Your task to perform on an android device: allow notifications from all sites in the chrome app Image 0: 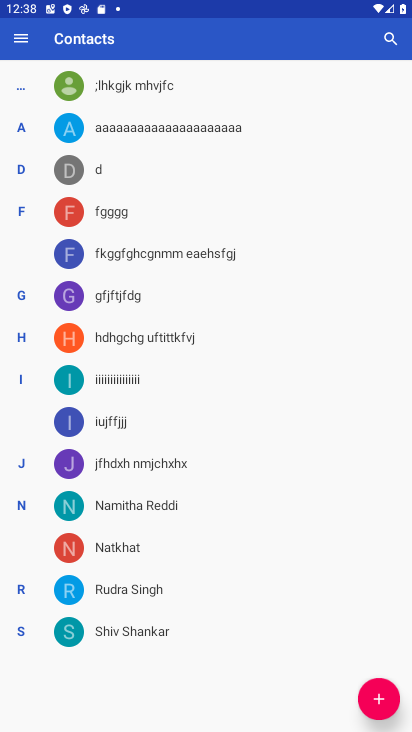
Step 0: press home button
Your task to perform on an android device: allow notifications from all sites in the chrome app Image 1: 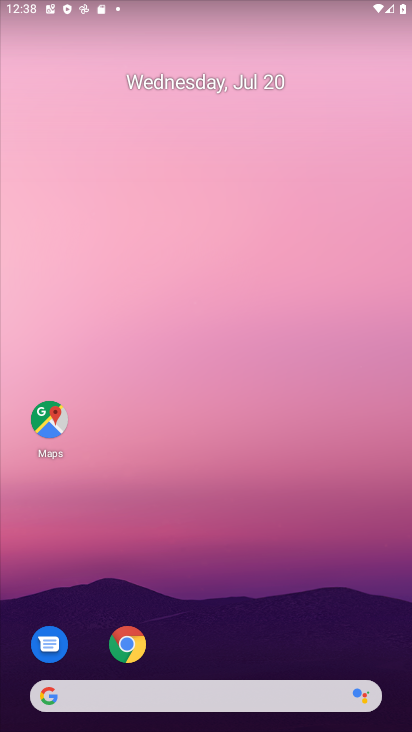
Step 1: drag from (336, 606) to (334, 138)
Your task to perform on an android device: allow notifications from all sites in the chrome app Image 2: 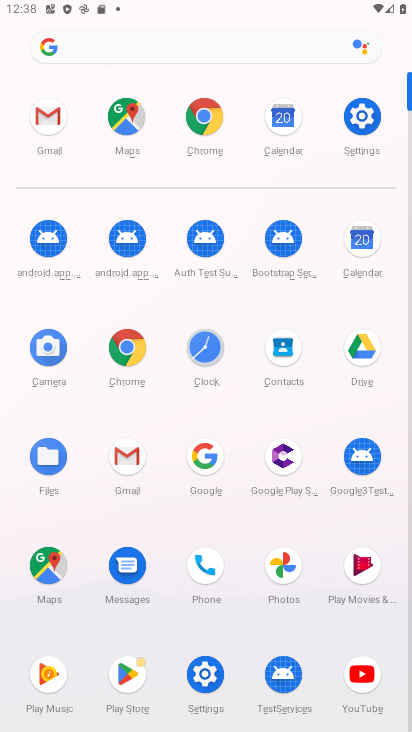
Step 2: click (145, 361)
Your task to perform on an android device: allow notifications from all sites in the chrome app Image 3: 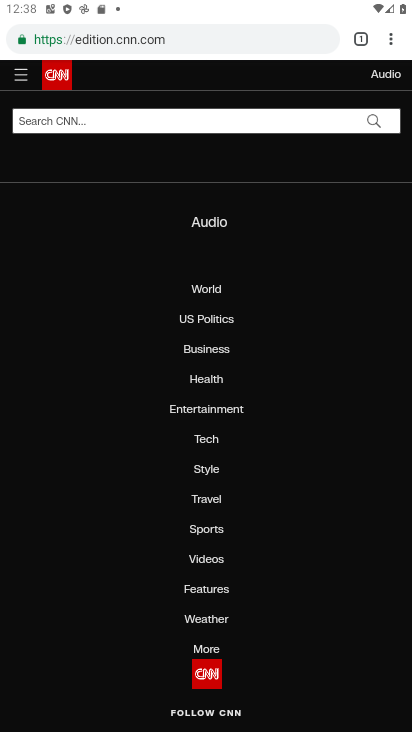
Step 3: press home button
Your task to perform on an android device: allow notifications from all sites in the chrome app Image 4: 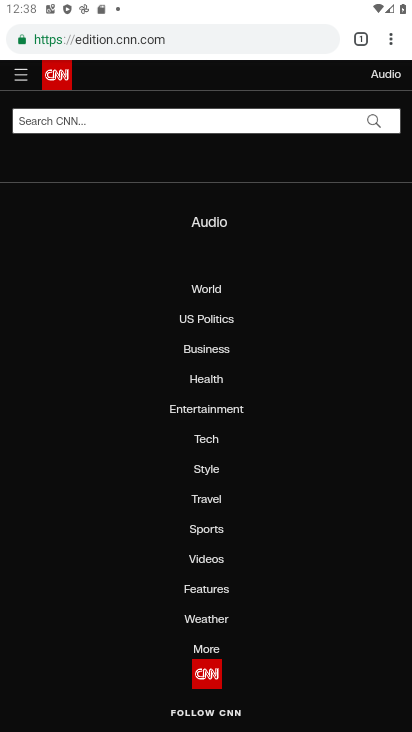
Step 4: click (210, 715)
Your task to perform on an android device: allow notifications from all sites in the chrome app Image 5: 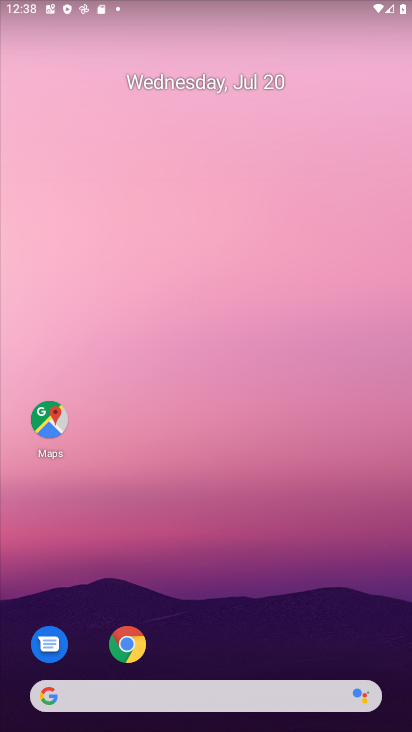
Step 5: click (135, 631)
Your task to perform on an android device: allow notifications from all sites in the chrome app Image 6: 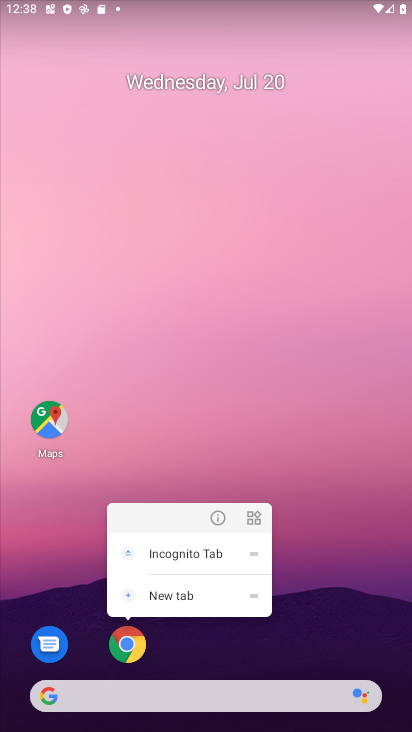
Step 6: click (214, 531)
Your task to perform on an android device: allow notifications from all sites in the chrome app Image 7: 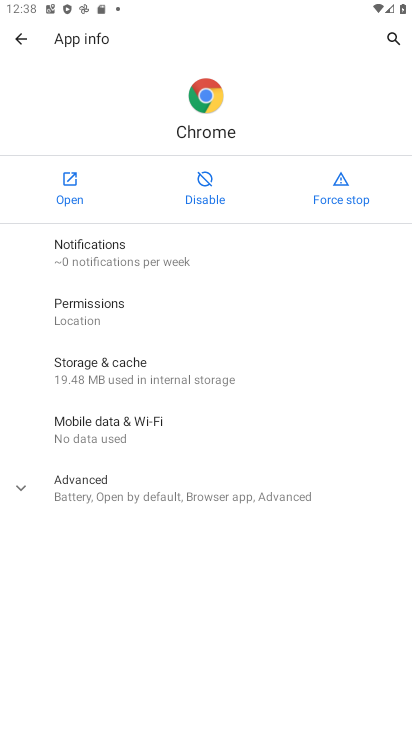
Step 7: click (85, 305)
Your task to perform on an android device: allow notifications from all sites in the chrome app Image 8: 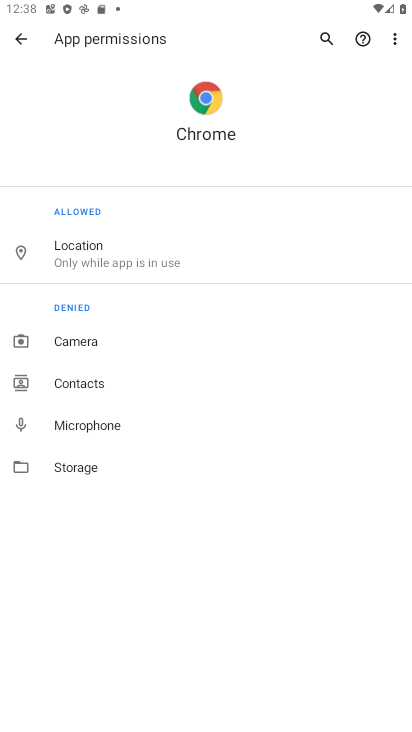
Step 8: click (75, 339)
Your task to perform on an android device: allow notifications from all sites in the chrome app Image 9: 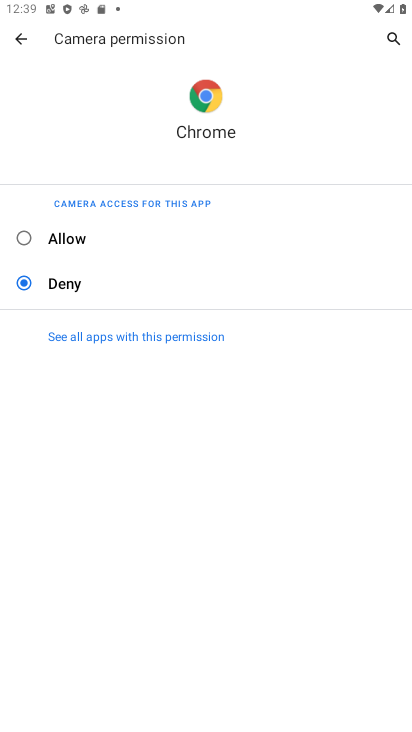
Step 9: click (105, 231)
Your task to perform on an android device: allow notifications from all sites in the chrome app Image 10: 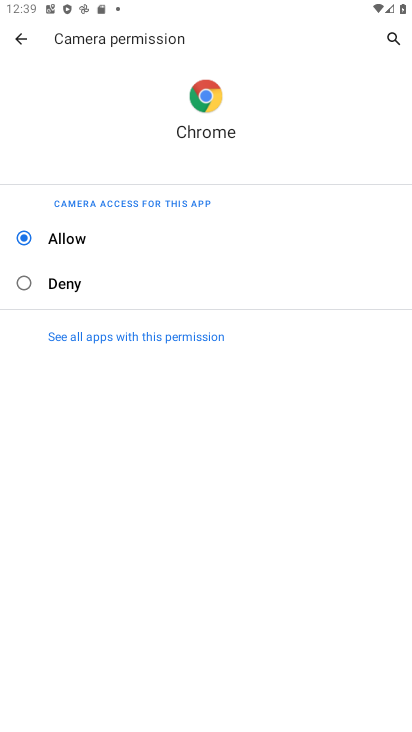
Step 10: click (31, 28)
Your task to perform on an android device: allow notifications from all sites in the chrome app Image 11: 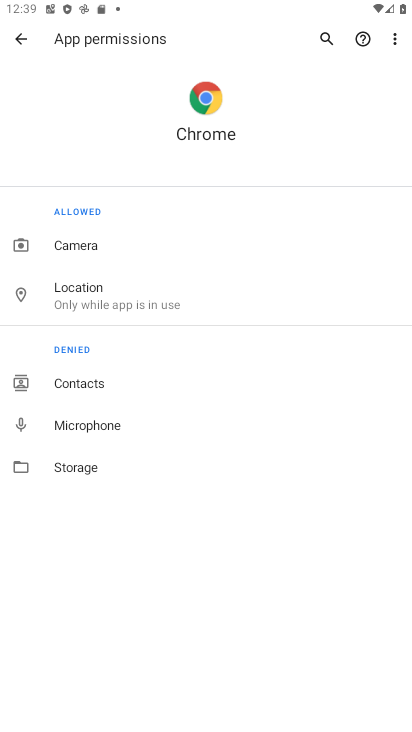
Step 11: click (85, 382)
Your task to perform on an android device: allow notifications from all sites in the chrome app Image 12: 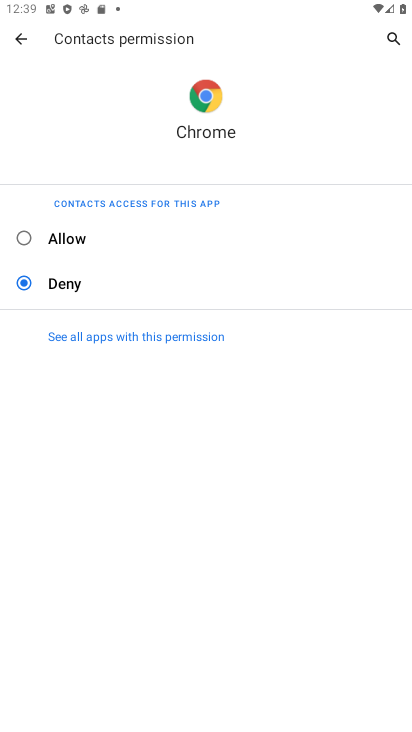
Step 12: click (58, 243)
Your task to perform on an android device: allow notifications from all sites in the chrome app Image 13: 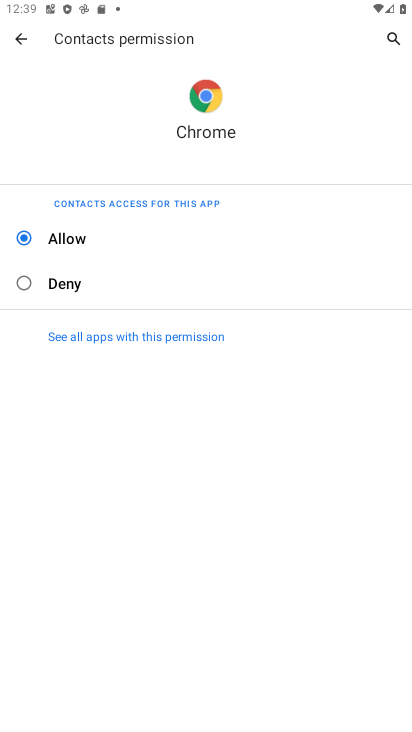
Step 13: press back button
Your task to perform on an android device: allow notifications from all sites in the chrome app Image 14: 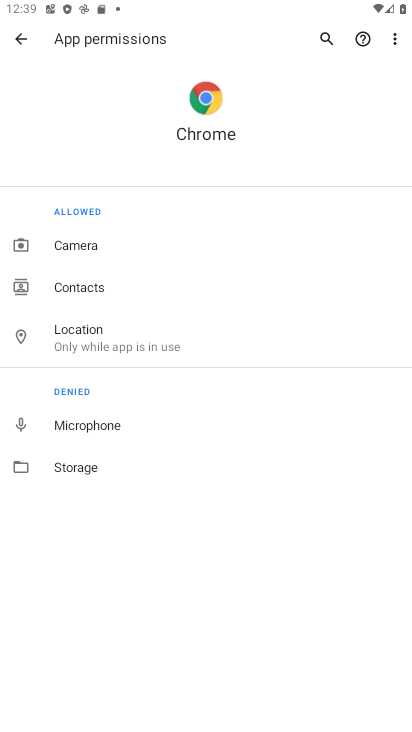
Step 14: click (55, 425)
Your task to perform on an android device: allow notifications from all sites in the chrome app Image 15: 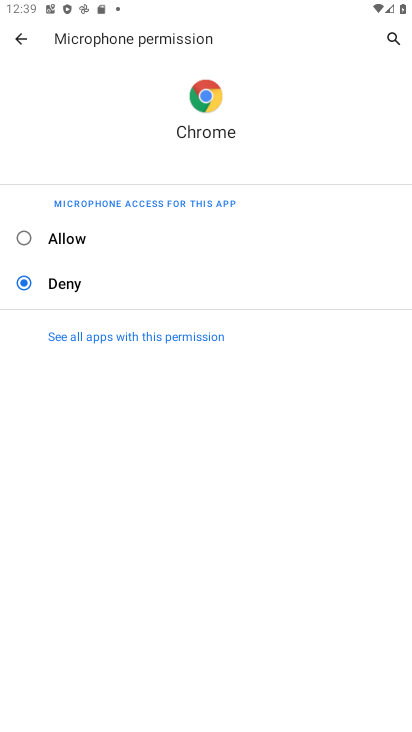
Step 15: click (18, 250)
Your task to perform on an android device: allow notifications from all sites in the chrome app Image 16: 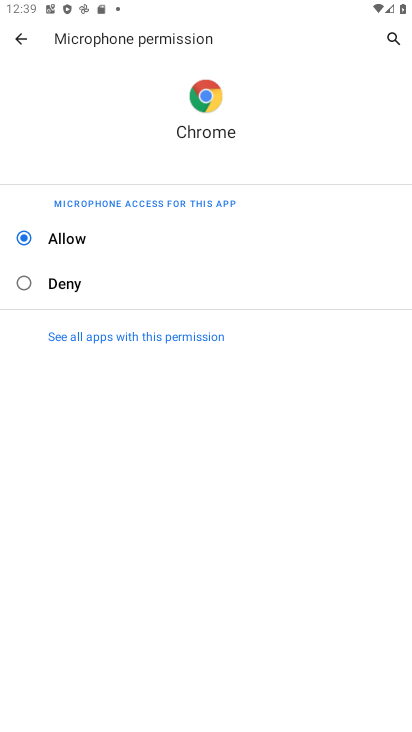
Step 16: press back button
Your task to perform on an android device: allow notifications from all sites in the chrome app Image 17: 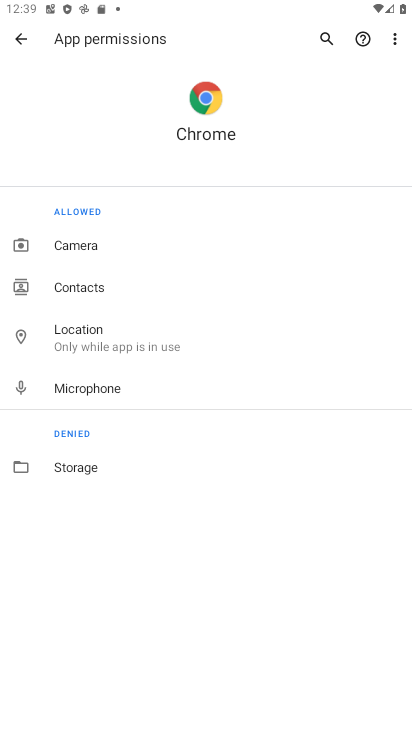
Step 17: click (47, 466)
Your task to perform on an android device: allow notifications from all sites in the chrome app Image 18: 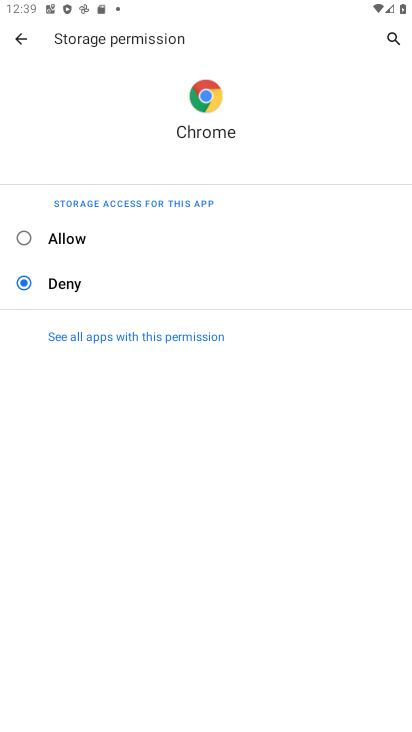
Step 18: click (60, 255)
Your task to perform on an android device: allow notifications from all sites in the chrome app Image 19: 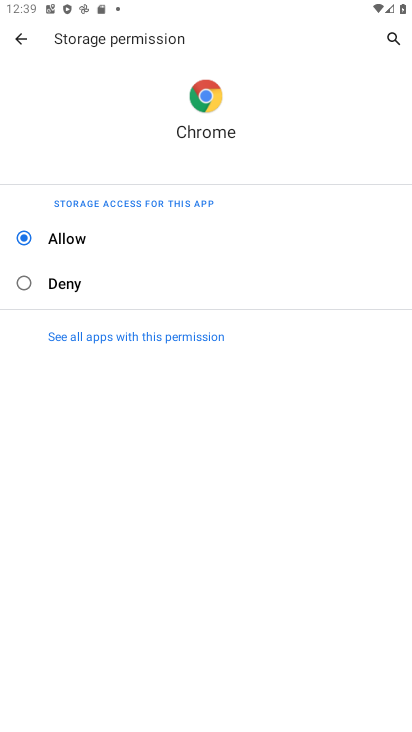
Step 19: task complete